Your task to perform on an android device: Search for a custom made wallet Image 0: 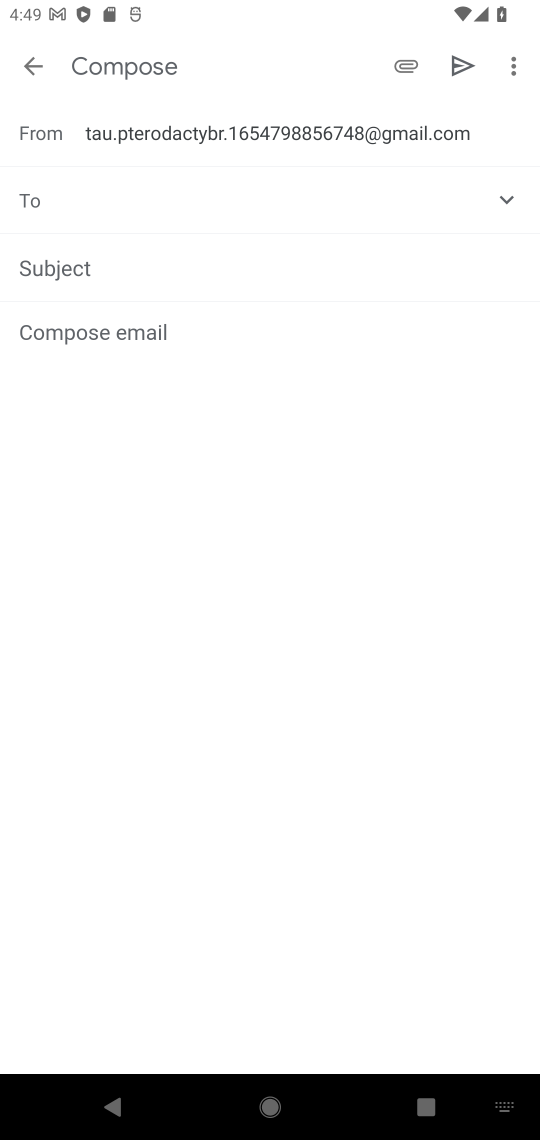
Step 0: press home button
Your task to perform on an android device: Search for a custom made wallet Image 1: 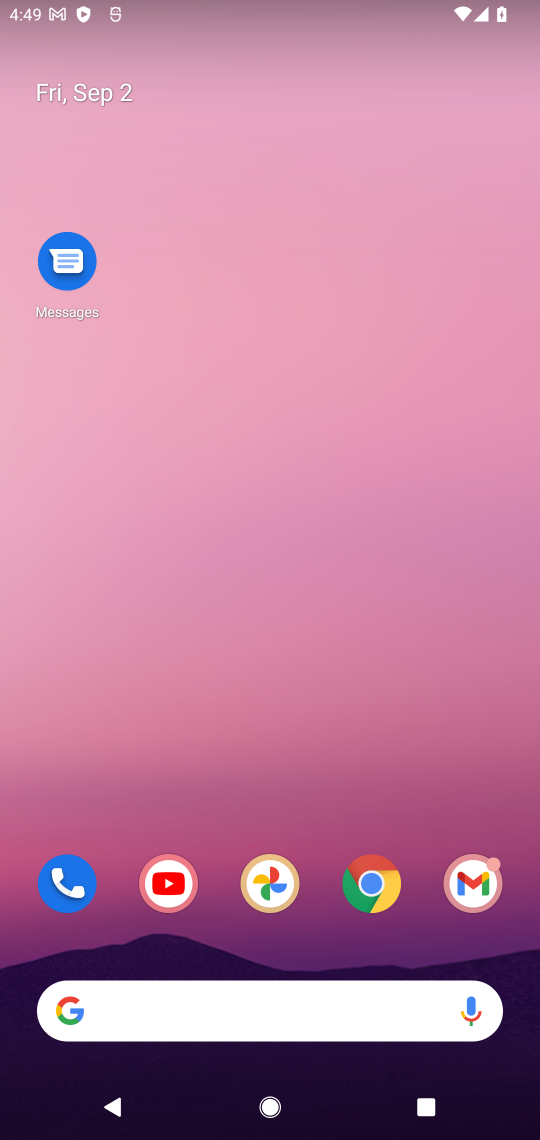
Step 1: drag from (350, 802) to (343, 5)
Your task to perform on an android device: Search for a custom made wallet Image 2: 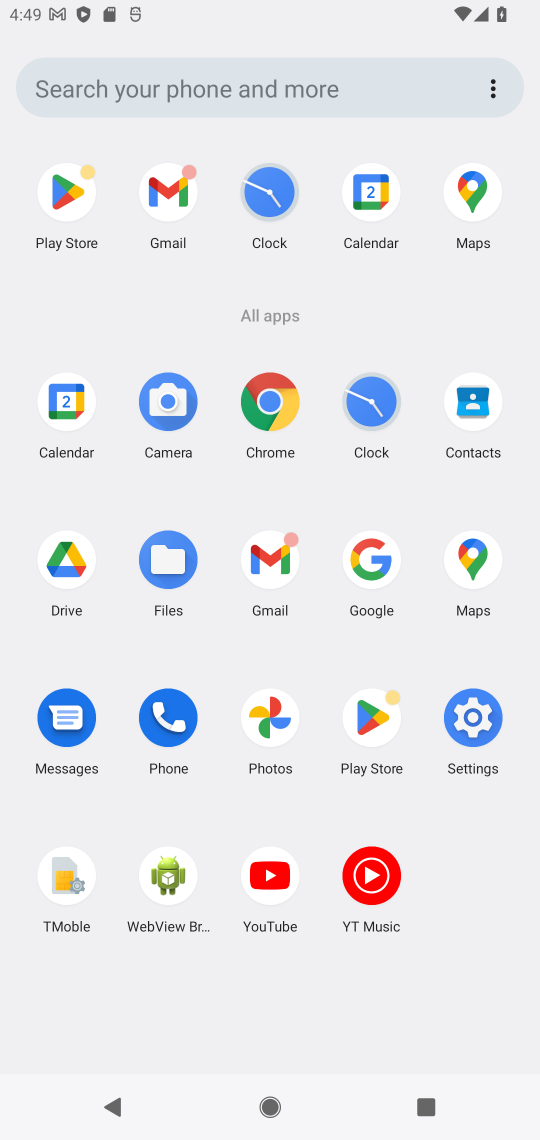
Step 2: click (270, 410)
Your task to perform on an android device: Search for a custom made wallet Image 3: 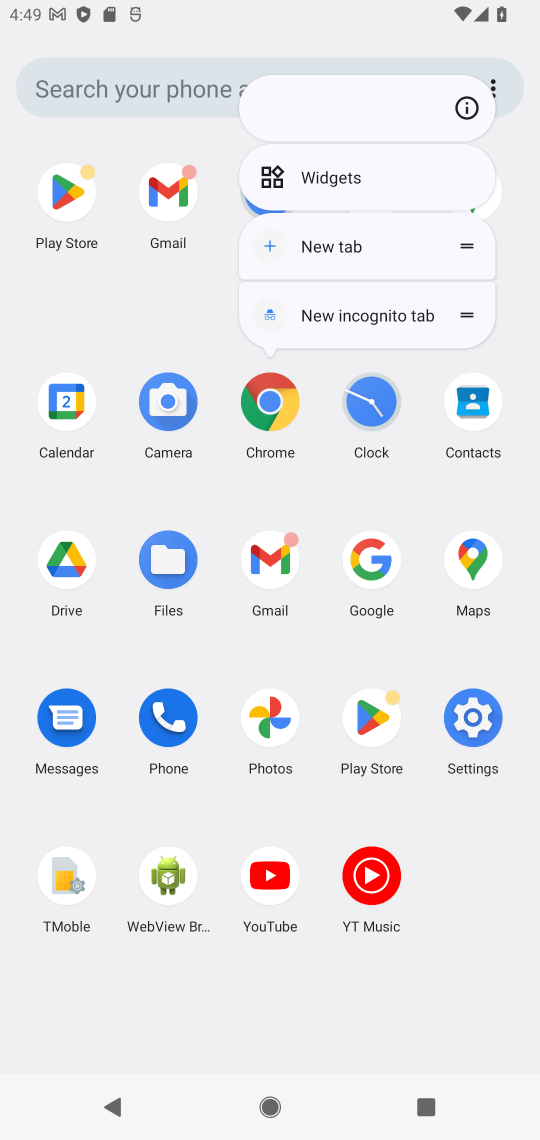
Step 3: click (265, 404)
Your task to perform on an android device: Search for a custom made wallet Image 4: 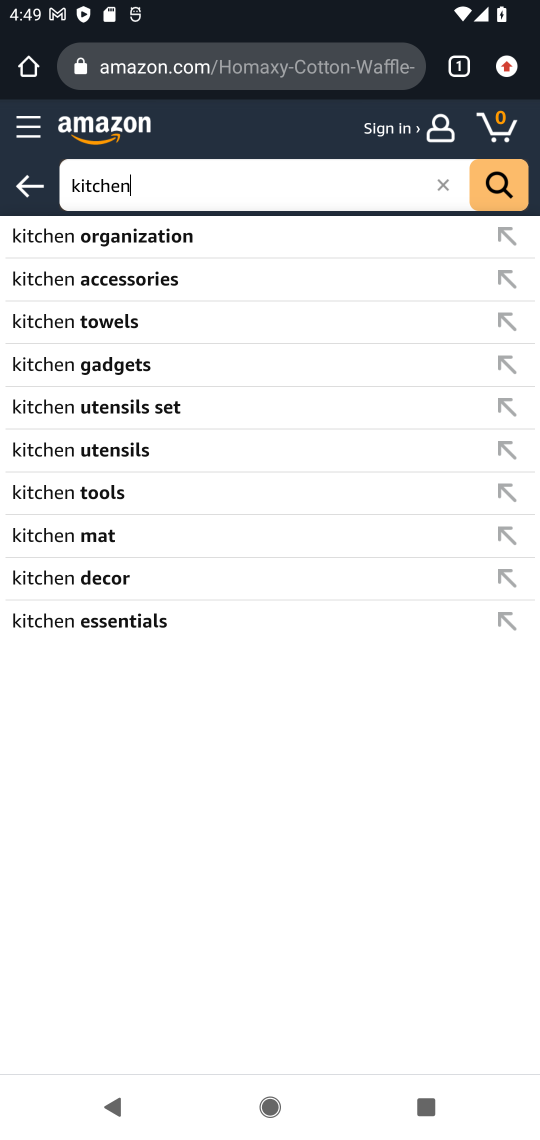
Step 4: click (209, 68)
Your task to perform on an android device: Search for a custom made wallet Image 5: 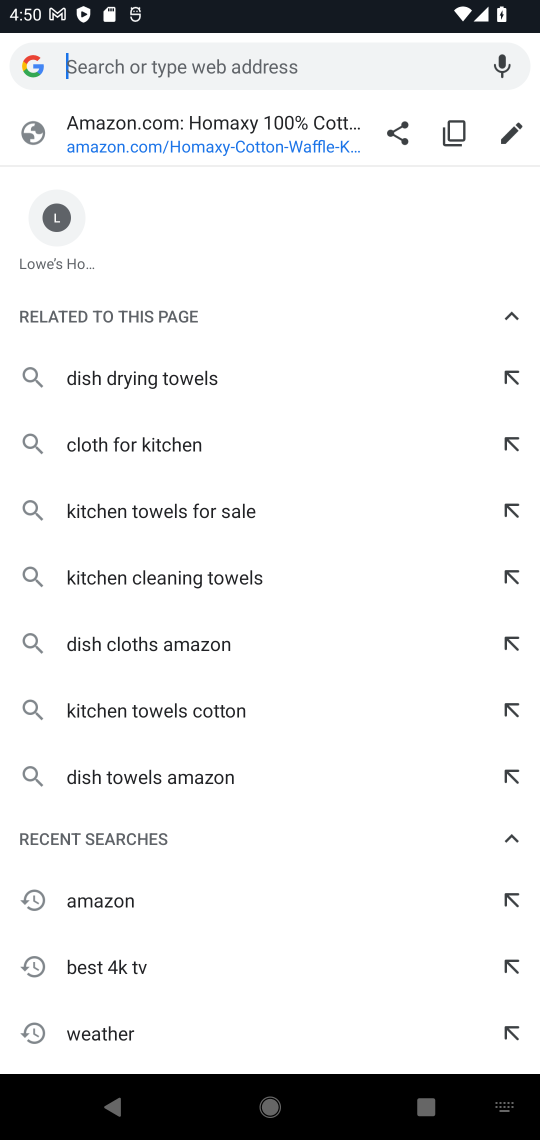
Step 5: type "custom made wallet"
Your task to perform on an android device: Search for a custom made wallet Image 6: 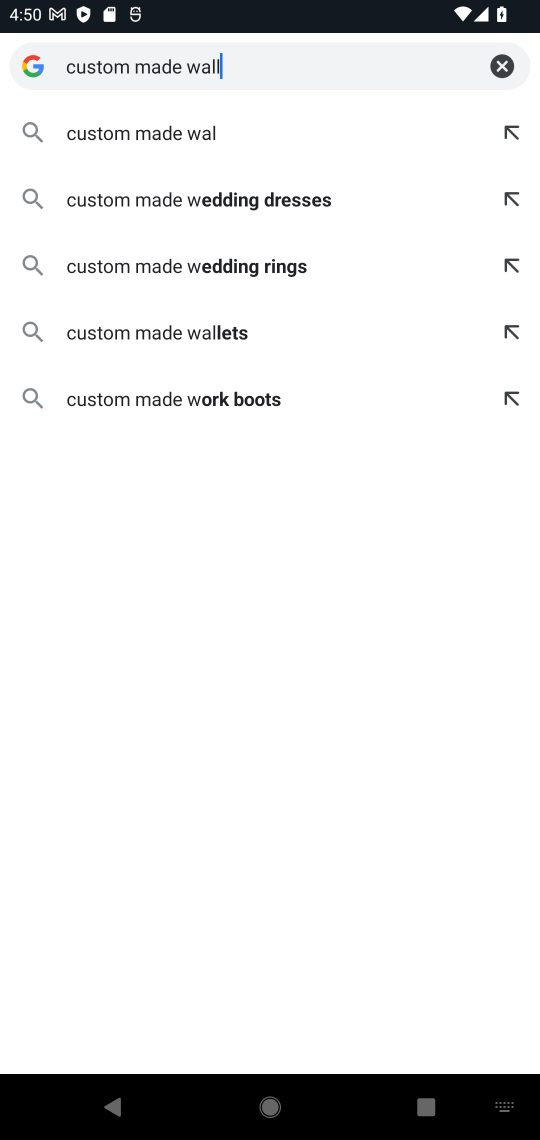
Step 6: press enter
Your task to perform on an android device: Search for a custom made wallet Image 7: 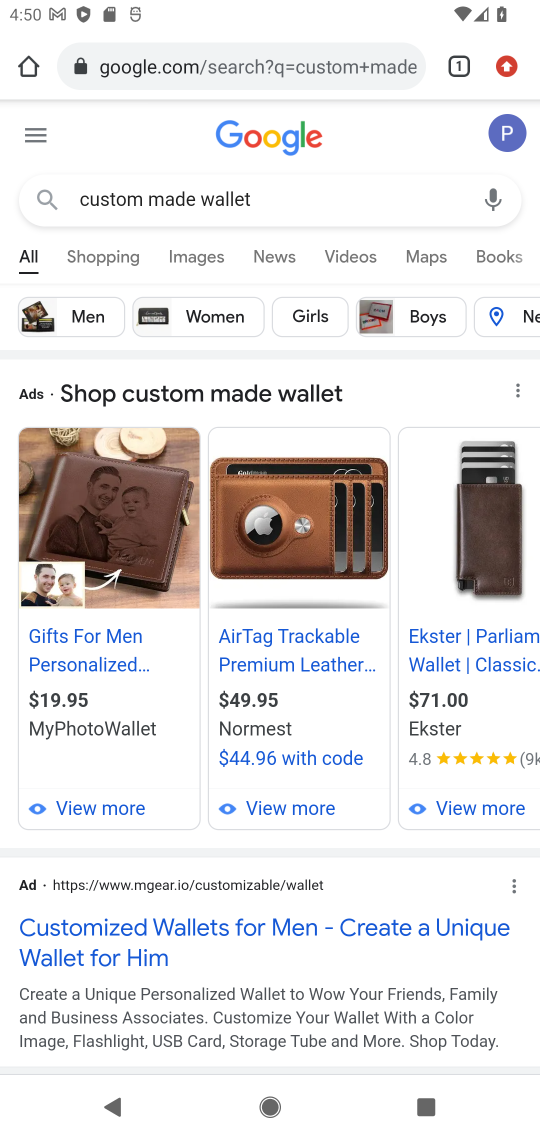
Step 7: click (183, 257)
Your task to perform on an android device: Search for a custom made wallet Image 8: 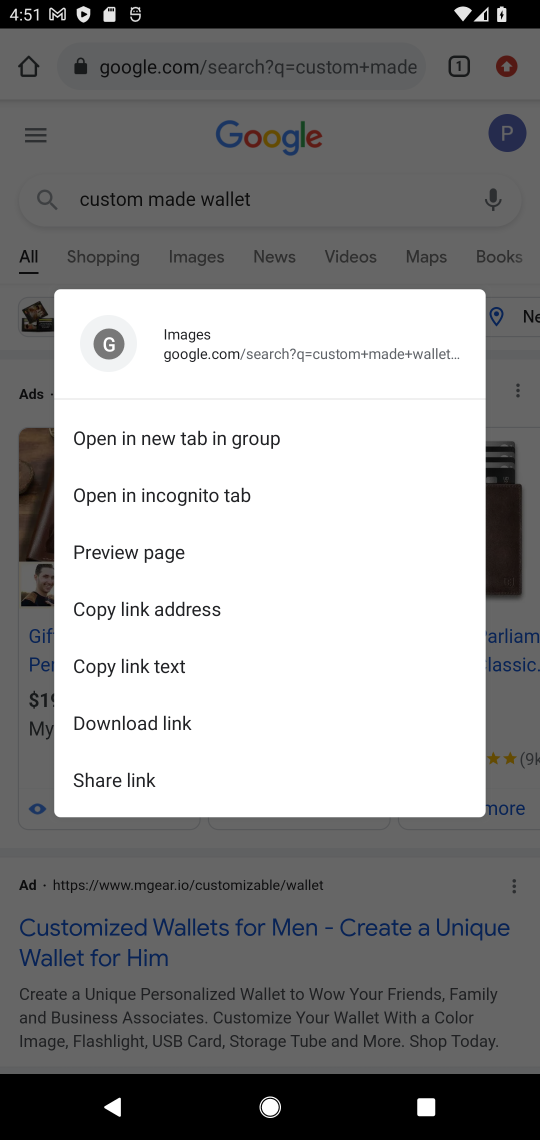
Step 8: click (483, 470)
Your task to perform on an android device: Search for a custom made wallet Image 9: 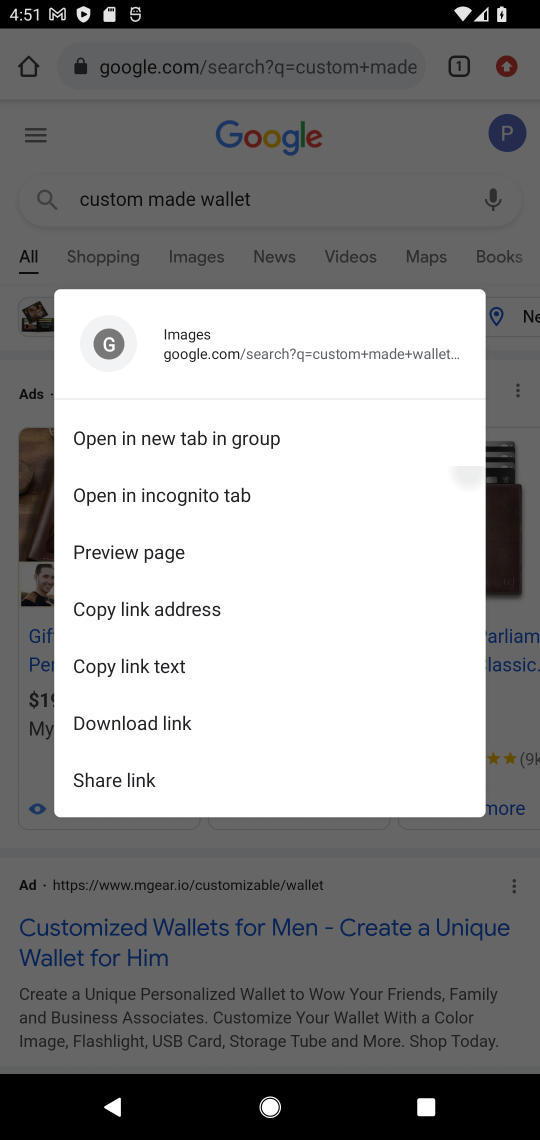
Step 9: click (495, 486)
Your task to perform on an android device: Search for a custom made wallet Image 10: 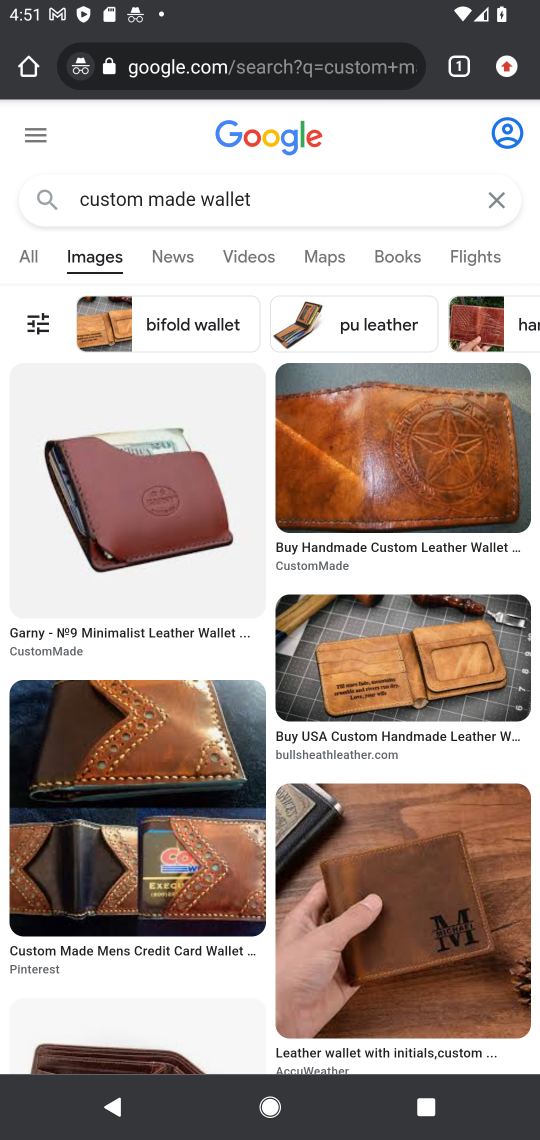
Step 10: click (288, 358)
Your task to perform on an android device: Search for a custom made wallet Image 11: 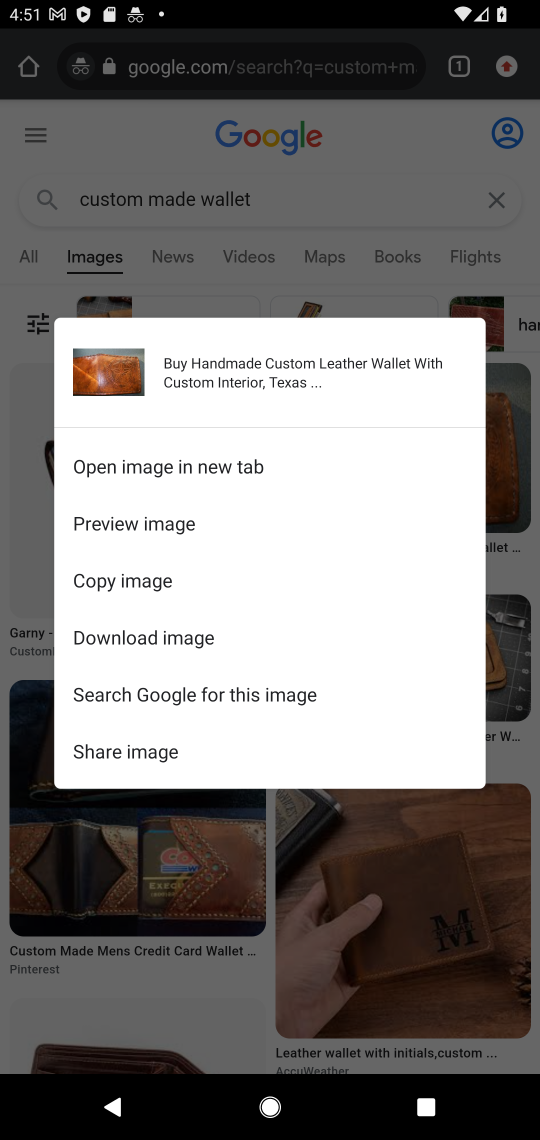
Step 11: click (420, 278)
Your task to perform on an android device: Search for a custom made wallet Image 12: 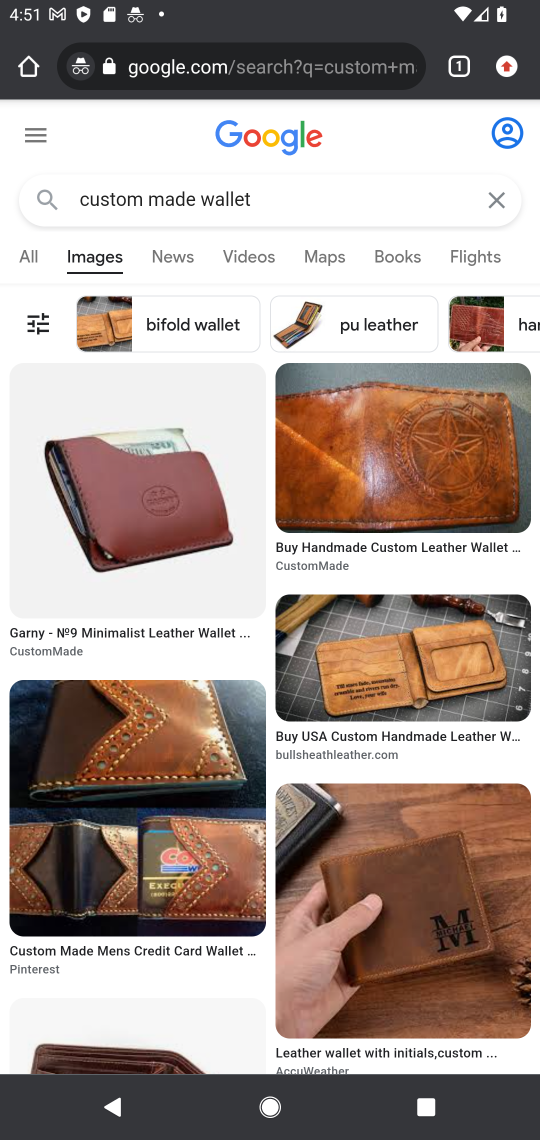
Step 12: task complete